Your task to perform on an android device: Open the map Image 0: 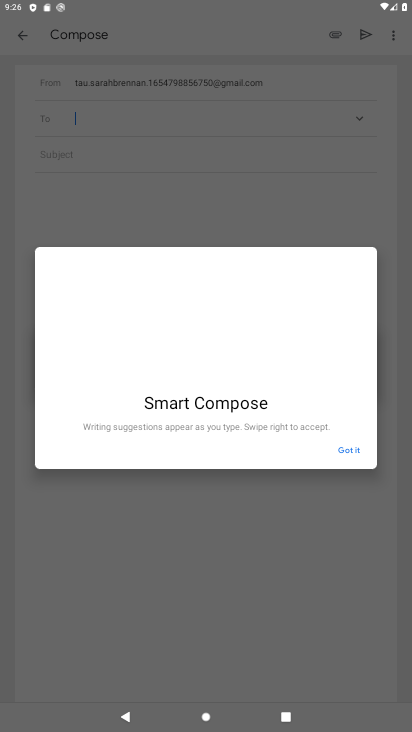
Step 0: press home button
Your task to perform on an android device: Open the map Image 1: 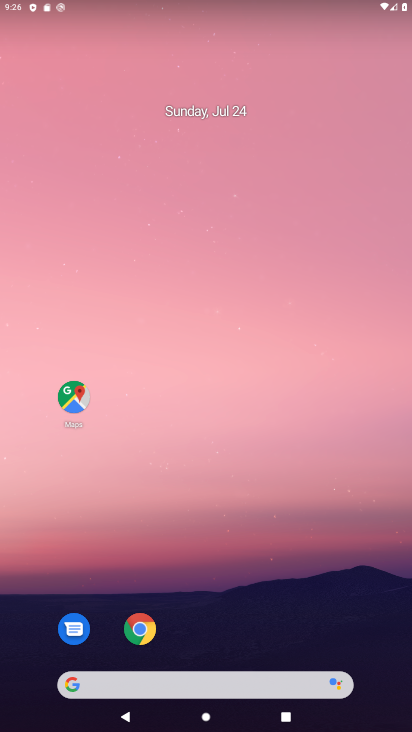
Step 1: click (76, 399)
Your task to perform on an android device: Open the map Image 2: 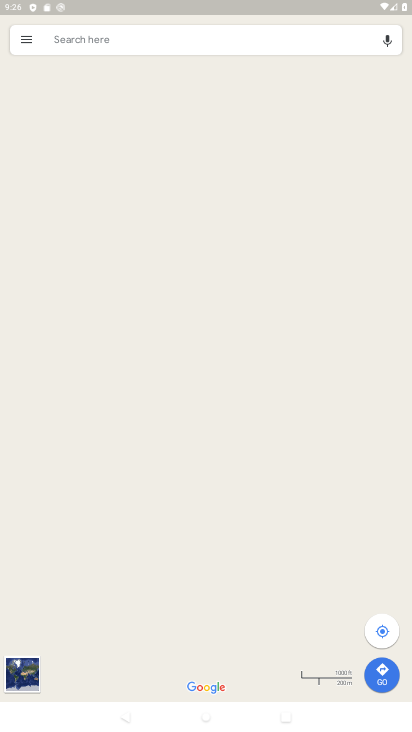
Step 2: task complete